Your task to perform on an android device: Search for hotels in Seattle Image 0: 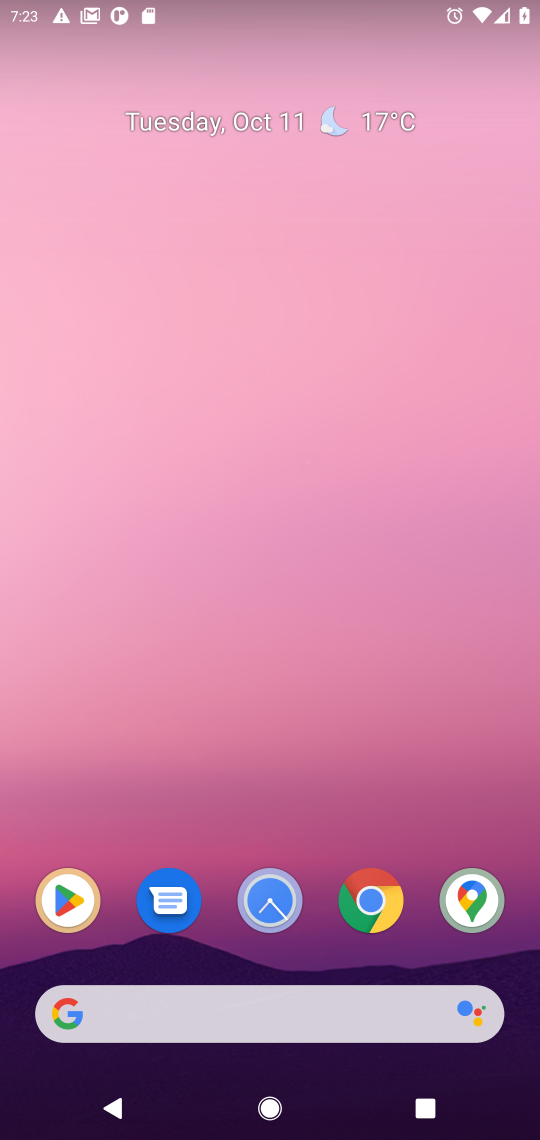
Step 0: click (368, 899)
Your task to perform on an android device: Search for hotels in Seattle Image 1: 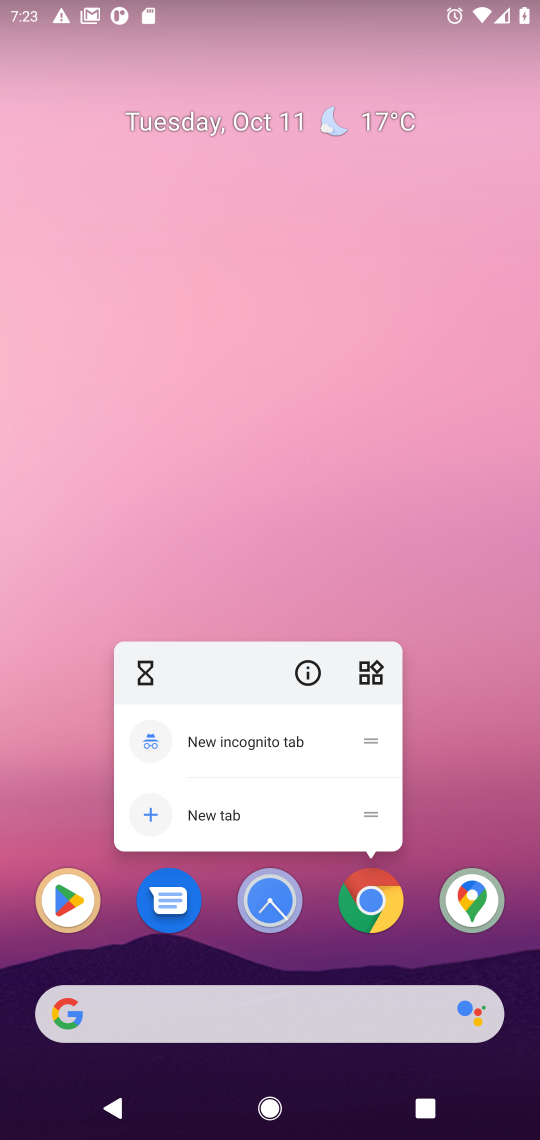
Step 1: click (330, 932)
Your task to perform on an android device: Search for hotels in Seattle Image 2: 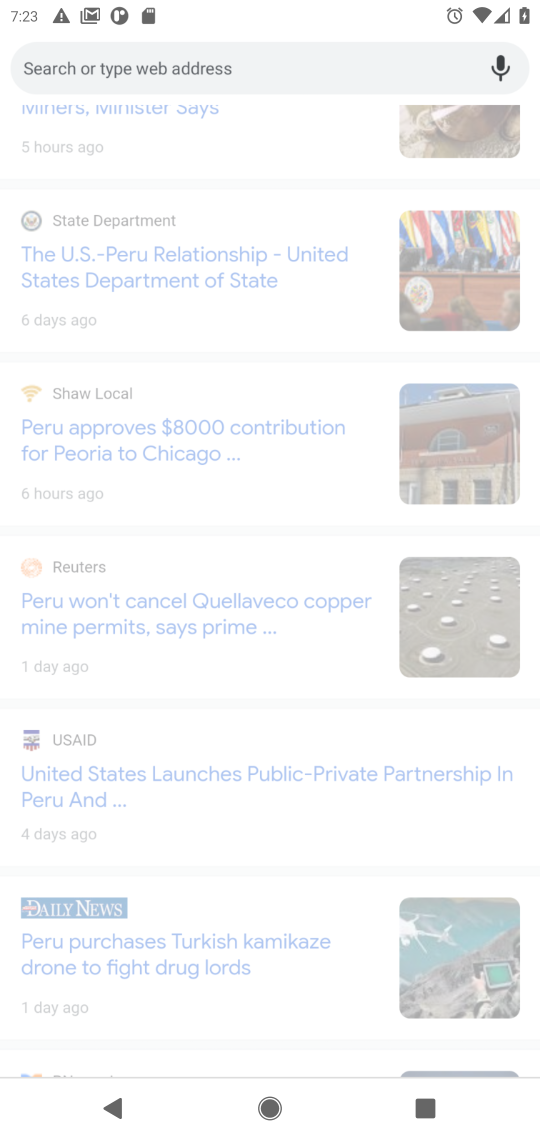
Step 2: click (371, 904)
Your task to perform on an android device: Search for hotels in Seattle Image 3: 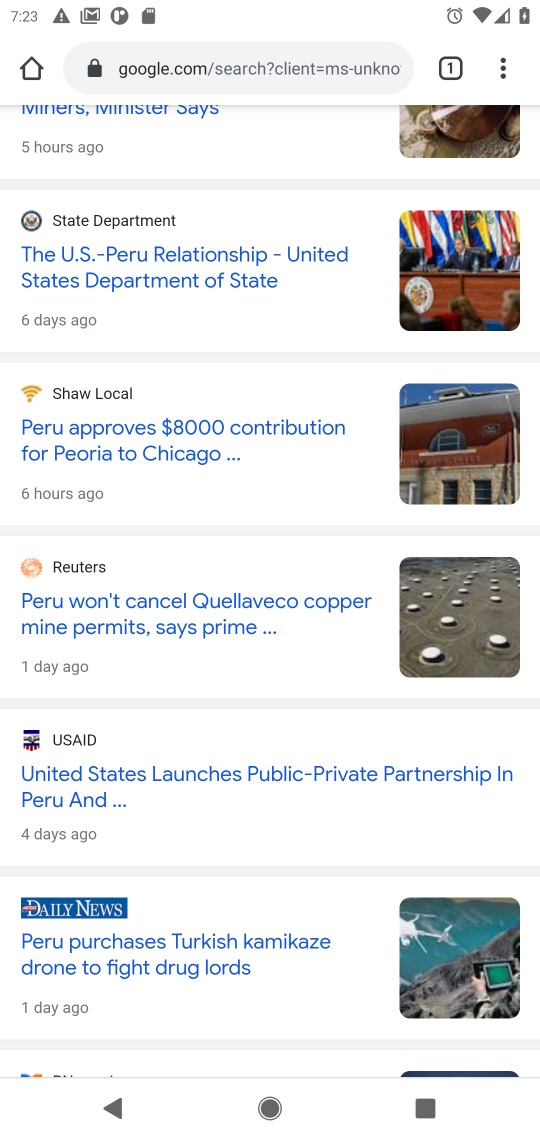
Step 3: click (283, 66)
Your task to perform on an android device: Search for hotels in Seattle Image 4: 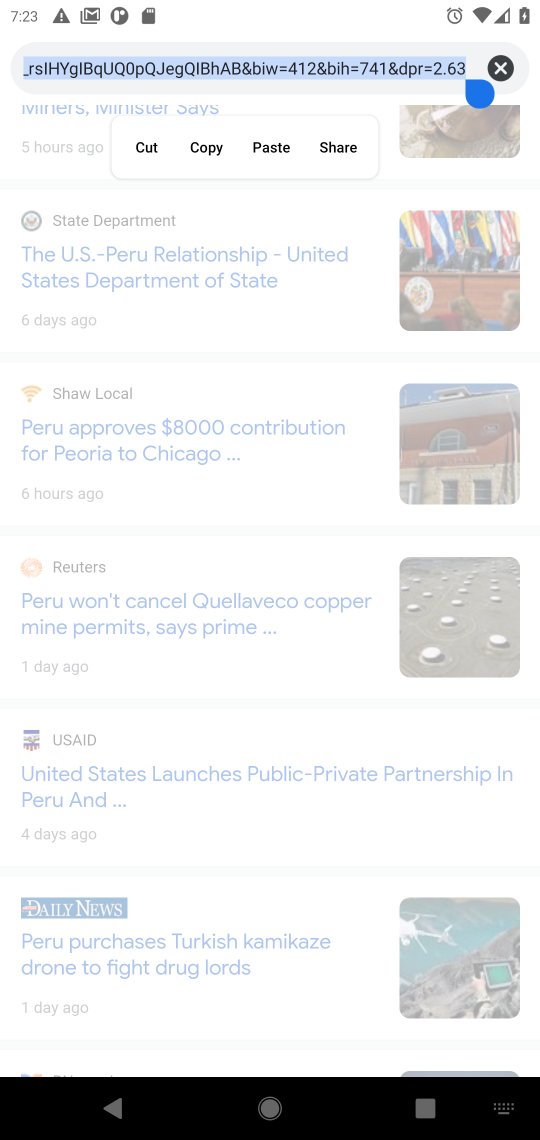
Step 4: click (509, 70)
Your task to perform on an android device: Search for hotels in Seattle Image 5: 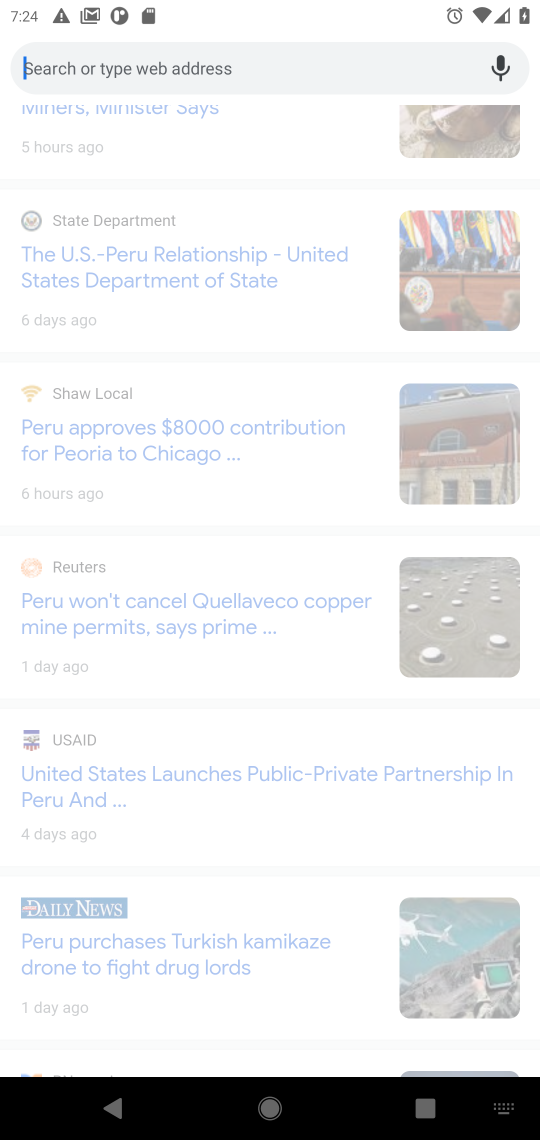
Step 5: type "hotels in Seattle"
Your task to perform on an android device: Search for hotels in Seattle Image 6: 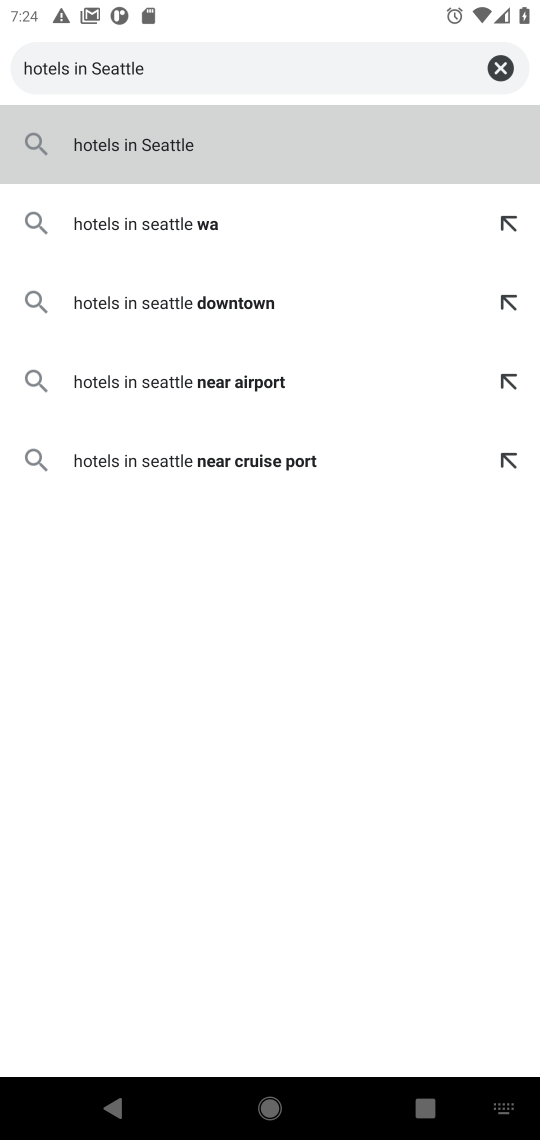
Step 6: press enter
Your task to perform on an android device: Search for hotels in Seattle Image 7: 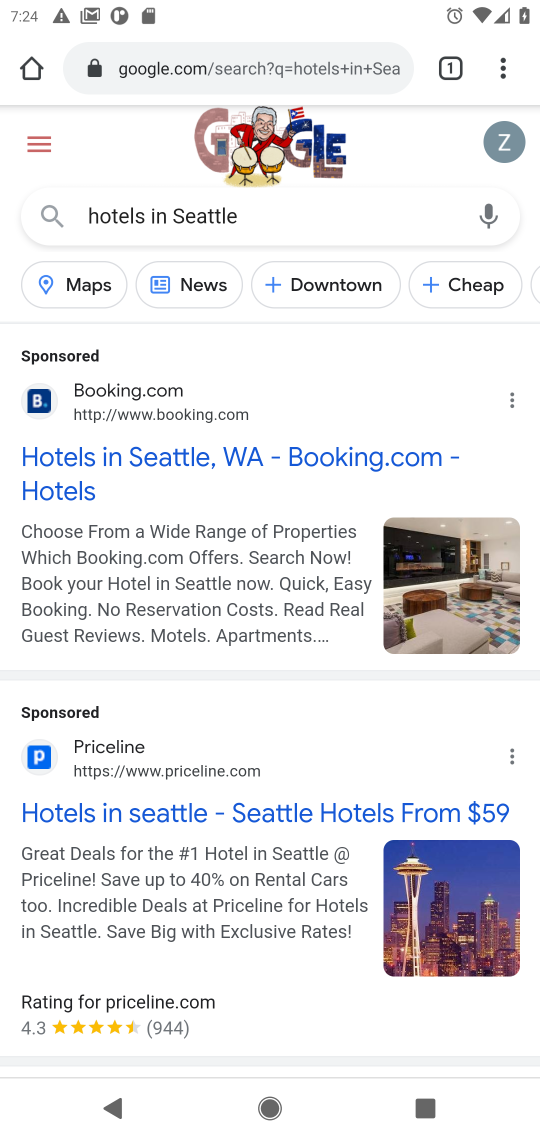
Step 7: drag from (221, 824) to (407, 156)
Your task to perform on an android device: Search for hotels in Seattle Image 8: 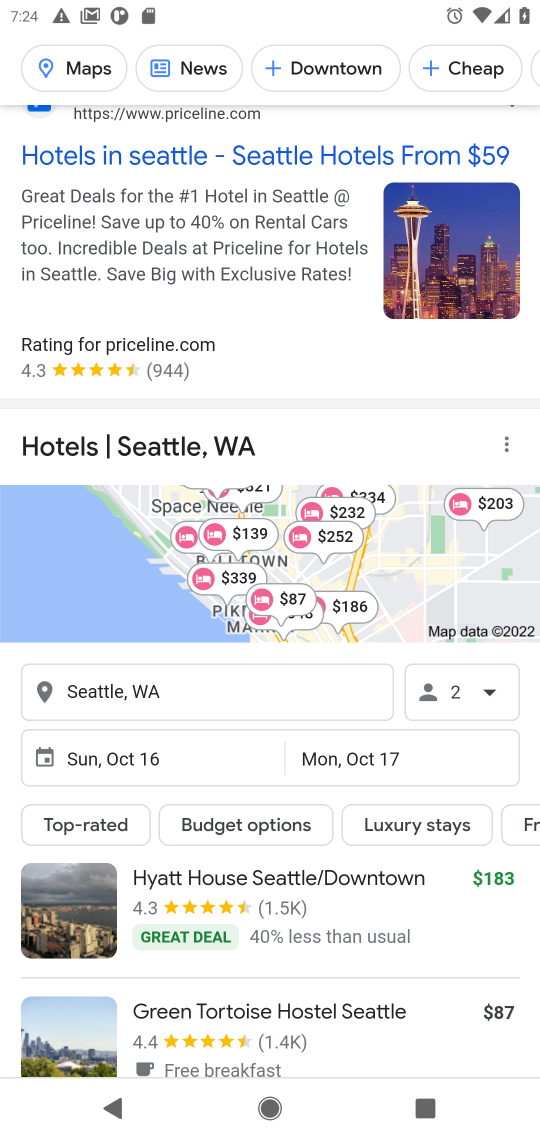
Step 8: drag from (253, 897) to (447, 137)
Your task to perform on an android device: Search for hotels in Seattle Image 9: 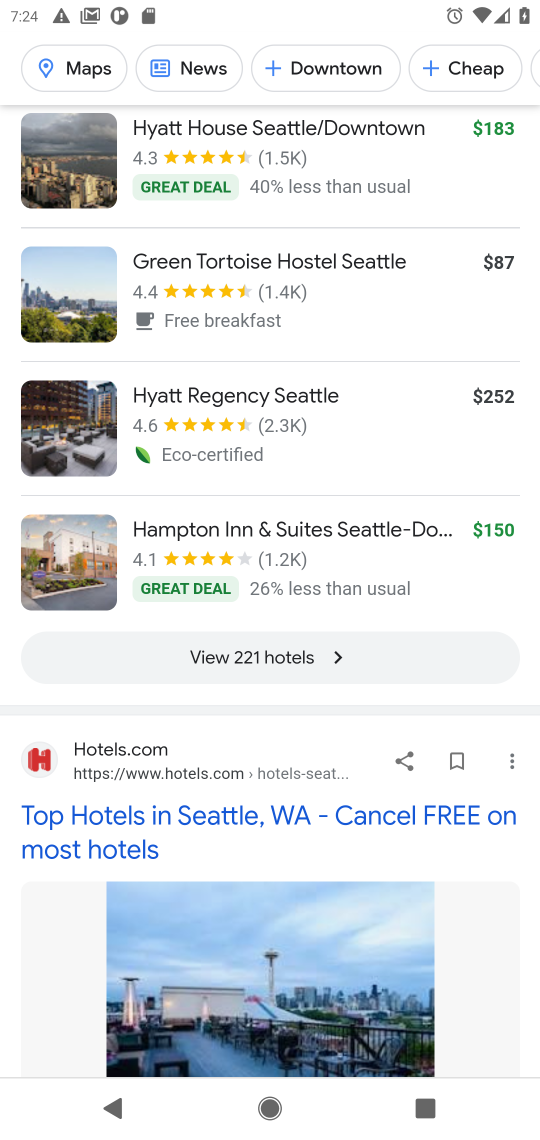
Step 9: click (255, 660)
Your task to perform on an android device: Search for hotels in Seattle Image 10: 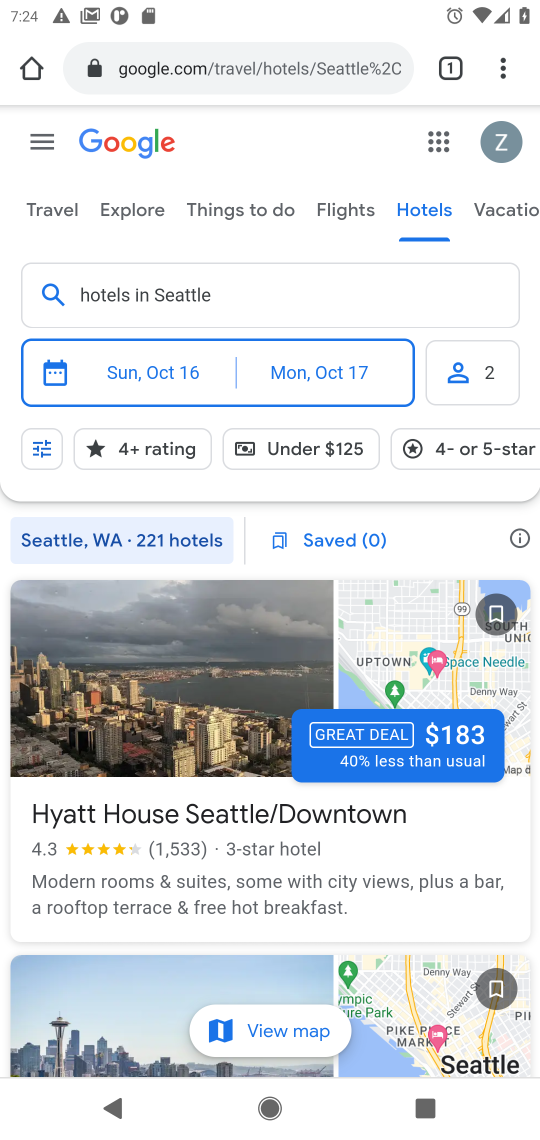
Step 10: task complete